Your task to perform on an android device: see tabs open on other devices in the chrome app Image 0: 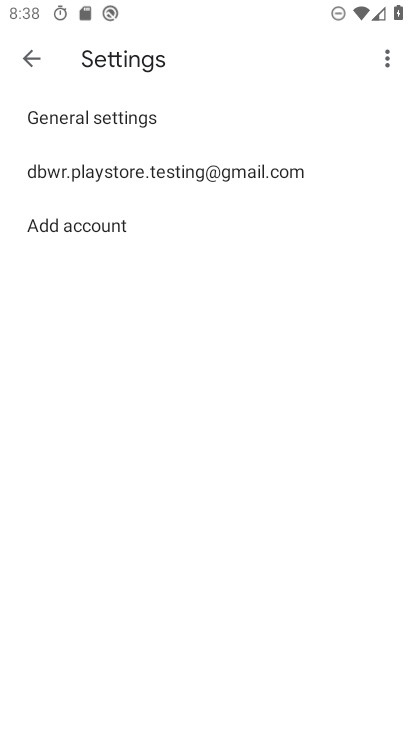
Step 0: press home button
Your task to perform on an android device: see tabs open on other devices in the chrome app Image 1: 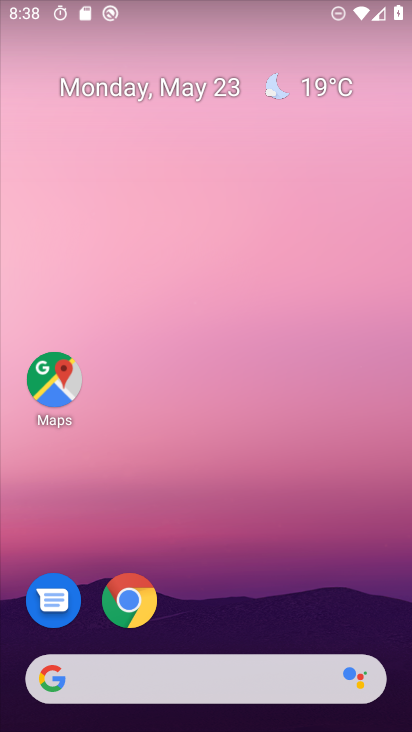
Step 1: click (124, 612)
Your task to perform on an android device: see tabs open on other devices in the chrome app Image 2: 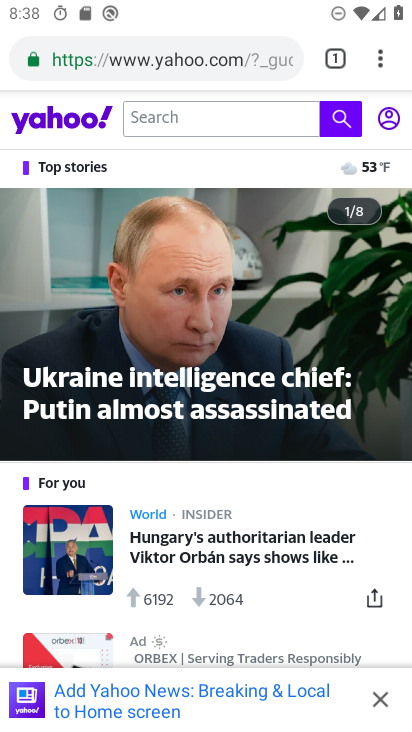
Step 2: click (339, 55)
Your task to perform on an android device: see tabs open on other devices in the chrome app Image 3: 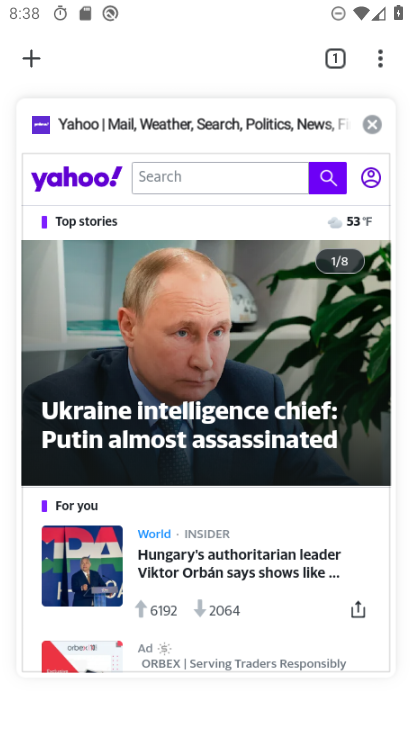
Step 3: task complete